Your task to perform on an android device: move an email to a new category in the gmail app Image 0: 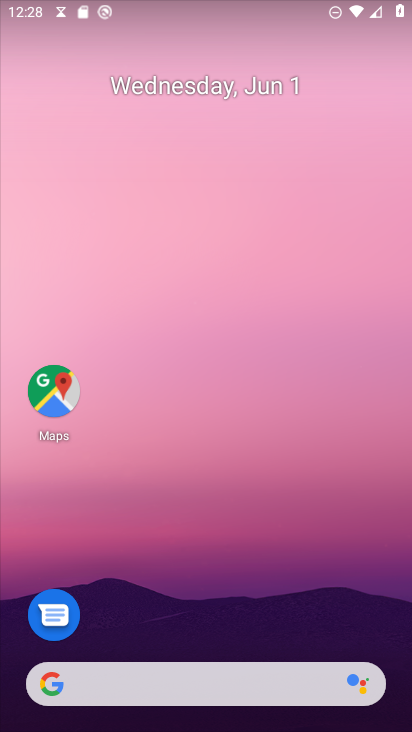
Step 0: drag from (294, 570) to (318, 223)
Your task to perform on an android device: move an email to a new category in the gmail app Image 1: 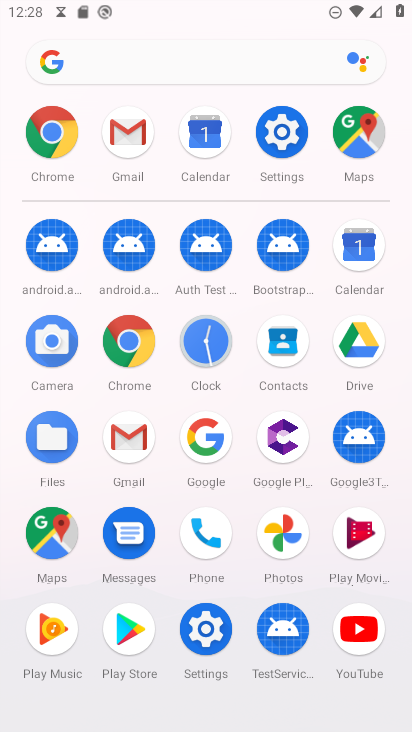
Step 1: click (123, 143)
Your task to perform on an android device: move an email to a new category in the gmail app Image 2: 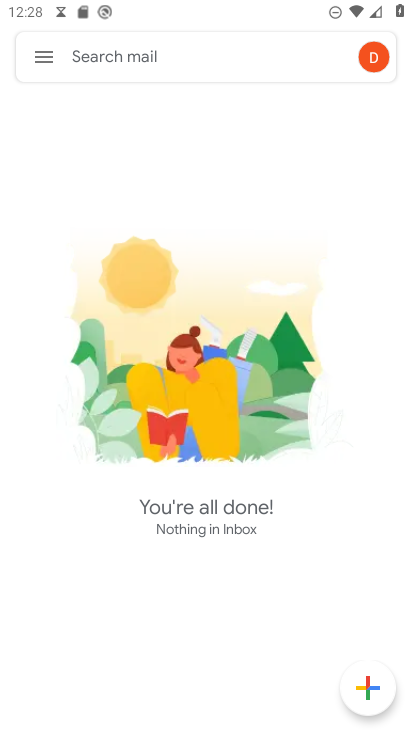
Step 2: click (45, 49)
Your task to perform on an android device: move an email to a new category in the gmail app Image 3: 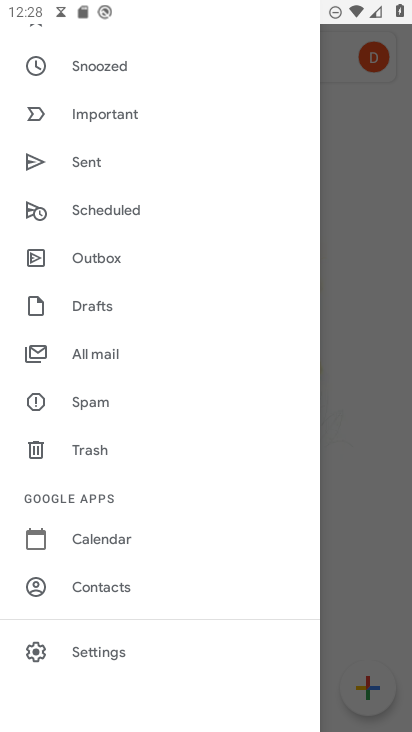
Step 3: click (360, 211)
Your task to perform on an android device: move an email to a new category in the gmail app Image 4: 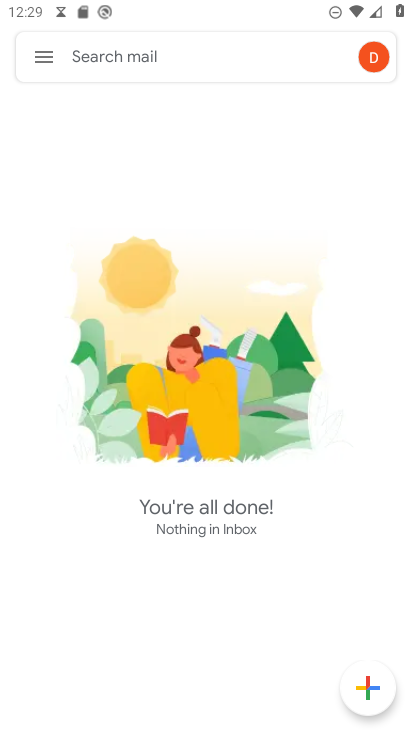
Step 4: task complete